Your task to perform on an android device: change keyboard looks Image 0: 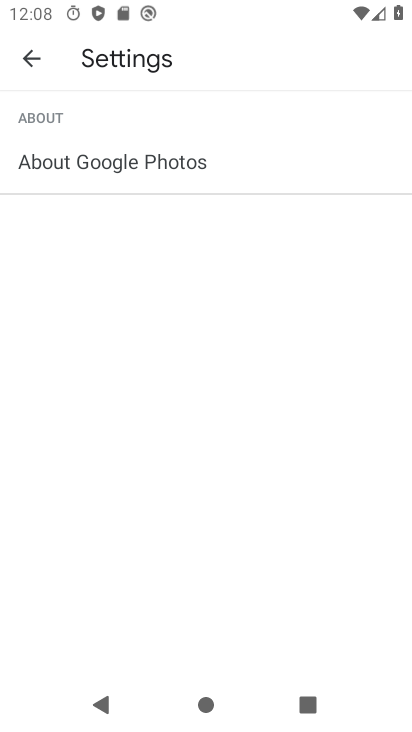
Step 0: press home button
Your task to perform on an android device: change keyboard looks Image 1: 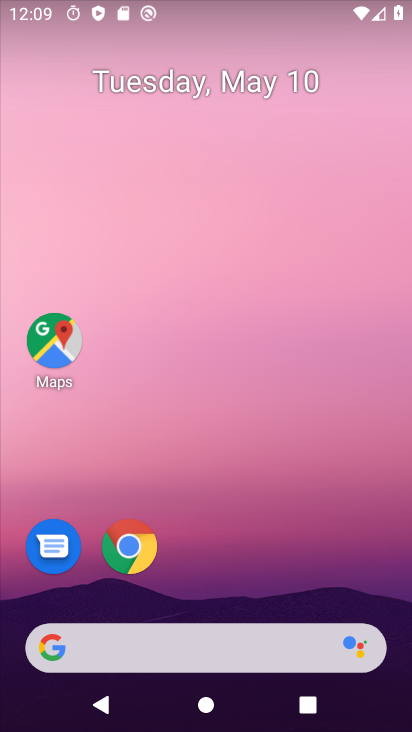
Step 1: drag from (232, 596) to (262, 107)
Your task to perform on an android device: change keyboard looks Image 2: 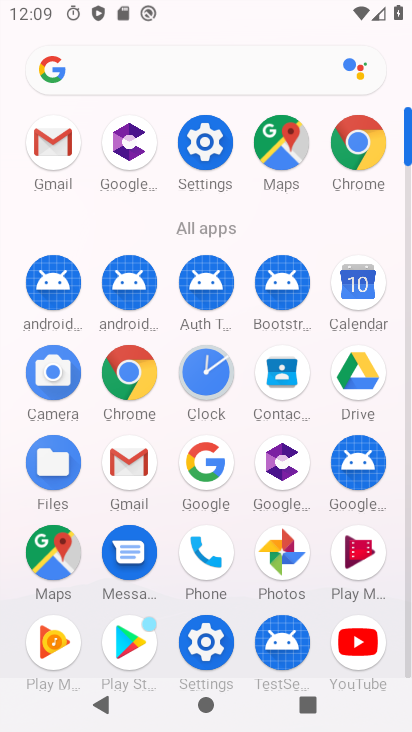
Step 2: click (216, 657)
Your task to perform on an android device: change keyboard looks Image 3: 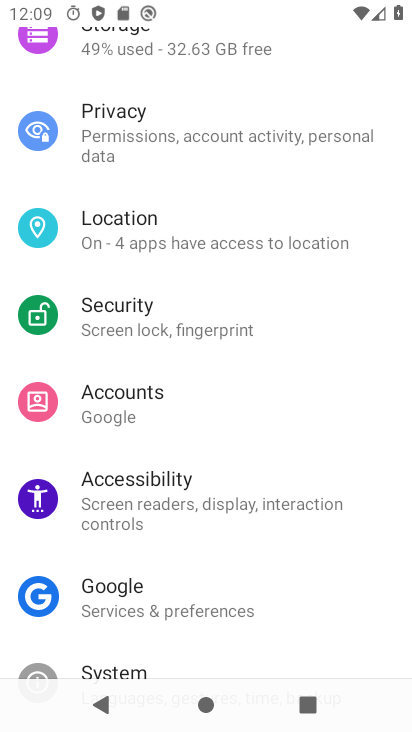
Step 3: drag from (196, 437) to (238, 154)
Your task to perform on an android device: change keyboard looks Image 4: 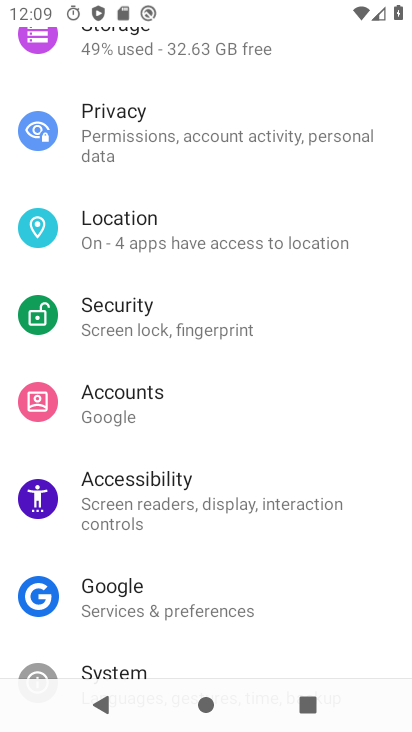
Step 4: drag from (156, 552) to (180, 192)
Your task to perform on an android device: change keyboard looks Image 5: 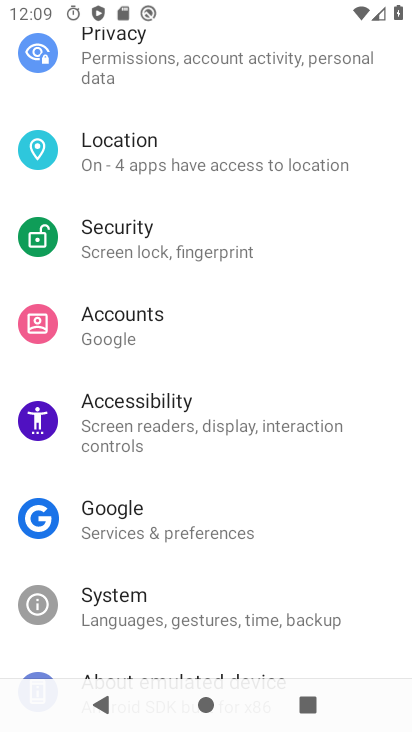
Step 5: drag from (179, 605) to (179, 260)
Your task to perform on an android device: change keyboard looks Image 6: 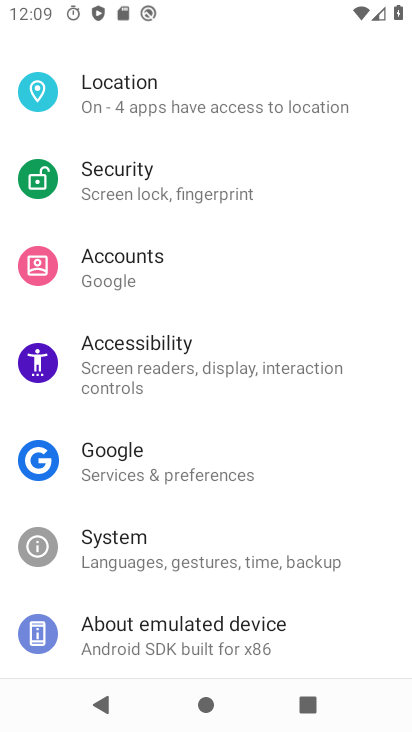
Step 6: click (191, 557)
Your task to perform on an android device: change keyboard looks Image 7: 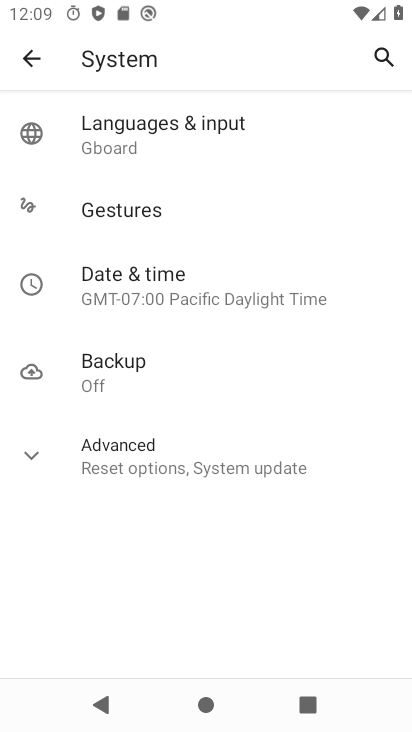
Step 7: click (148, 155)
Your task to perform on an android device: change keyboard looks Image 8: 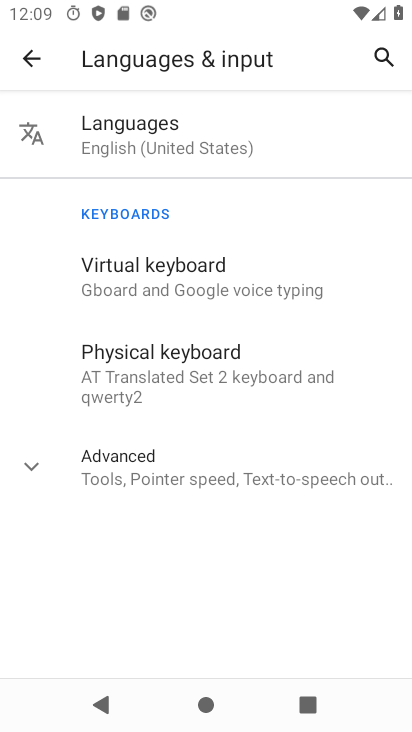
Step 8: click (146, 266)
Your task to perform on an android device: change keyboard looks Image 9: 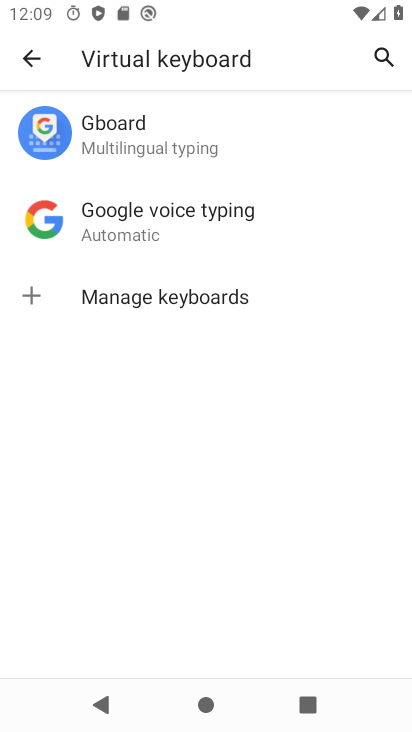
Step 9: click (146, 171)
Your task to perform on an android device: change keyboard looks Image 10: 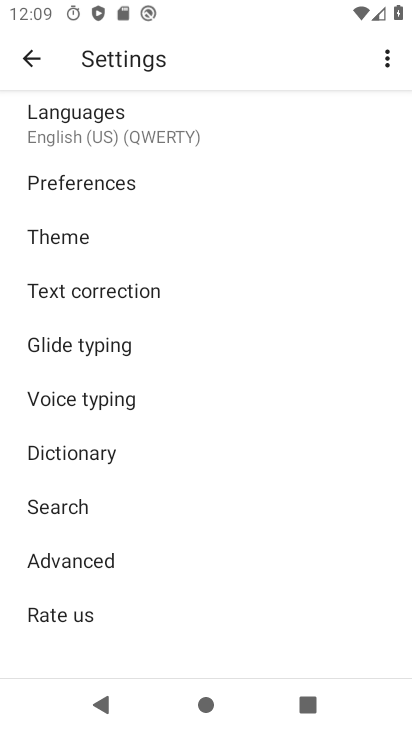
Step 10: click (146, 239)
Your task to perform on an android device: change keyboard looks Image 11: 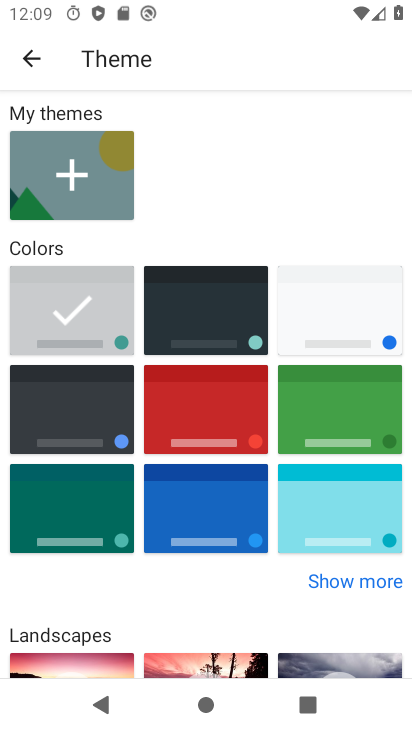
Step 11: click (204, 396)
Your task to perform on an android device: change keyboard looks Image 12: 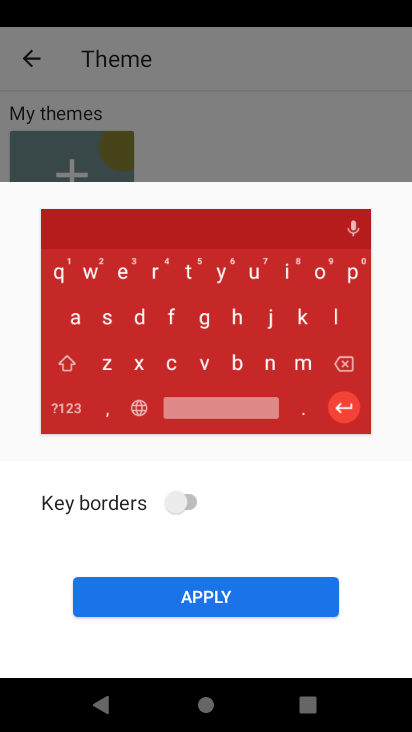
Step 12: click (211, 607)
Your task to perform on an android device: change keyboard looks Image 13: 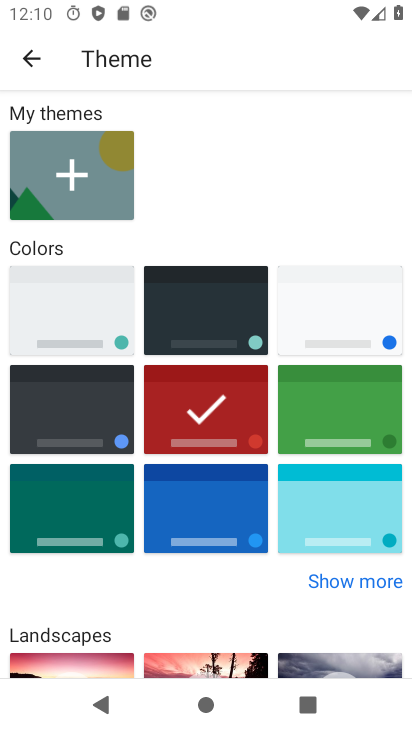
Step 13: task complete